Your task to perform on an android device: Go to internet settings Image 0: 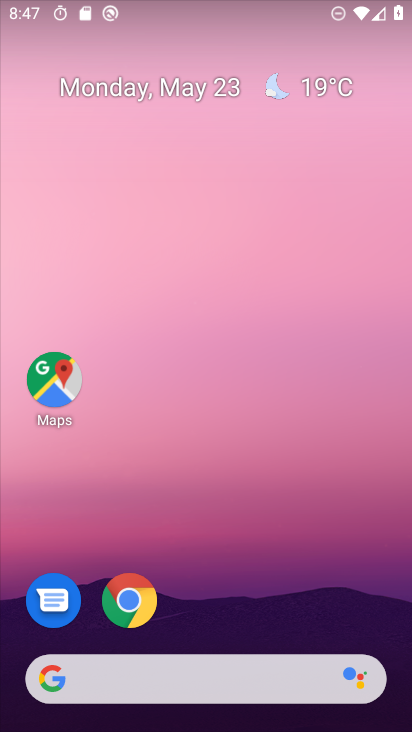
Step 0: press home button
Your task to perform on an android device: Go to internet settings Image 1: 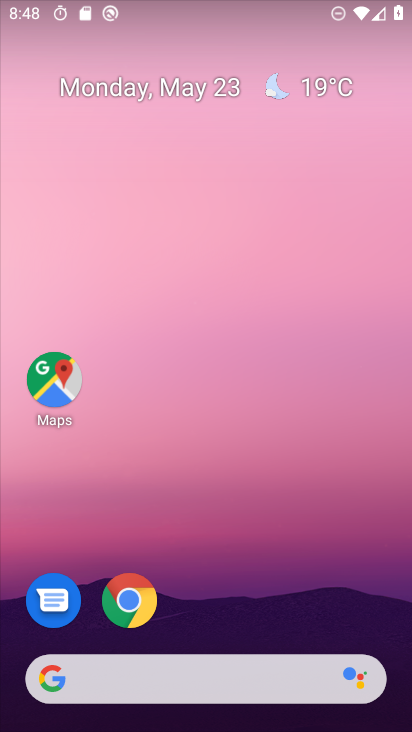
Step 1: drag from (32, 630) to (255, 130)
Your task to perform on an android device: Go to internet settings Image 2: 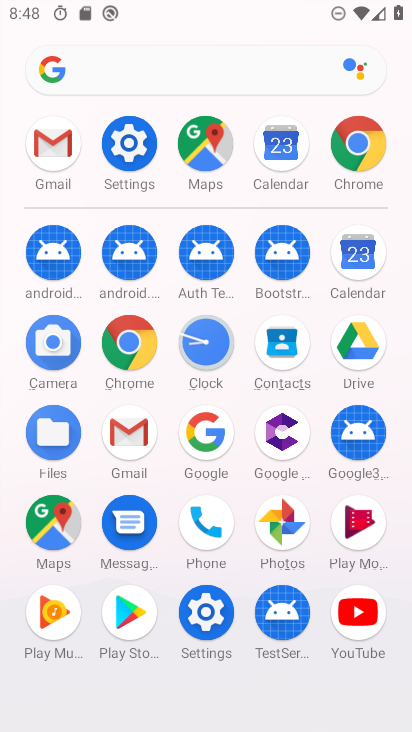
Step 2: click (139, 156)
Your task to perform on an android device: Go to internet settings Image 3: 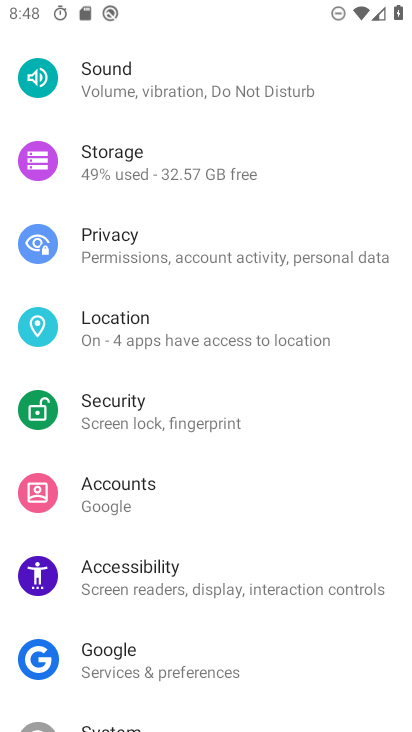
Step 3: drag from (158, 110) to (197, 677)
Your task to perform on an android device: Go to internet settings Image 4: 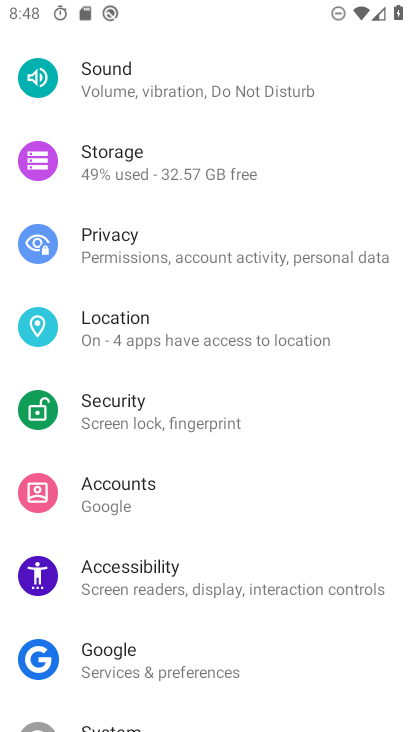
Step 4: drag from (115, 117) to (137, 625)
Your task to perform on an android device: Go to internet settings Image 5: 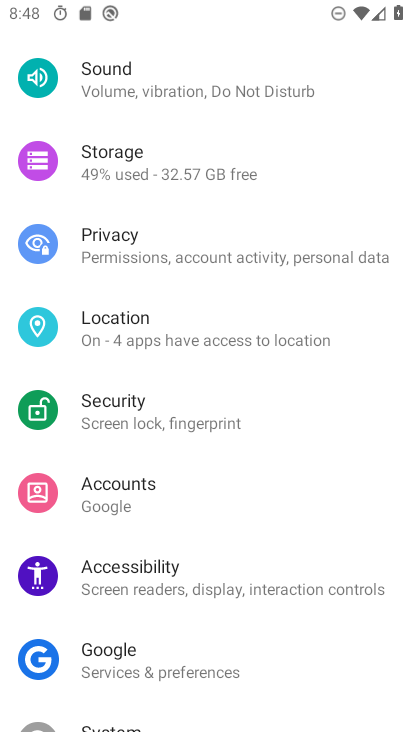
Step 5: drag from (194, 109) to (167, 539)
Your task to perform on an android device: Go to internet settings Image 6: 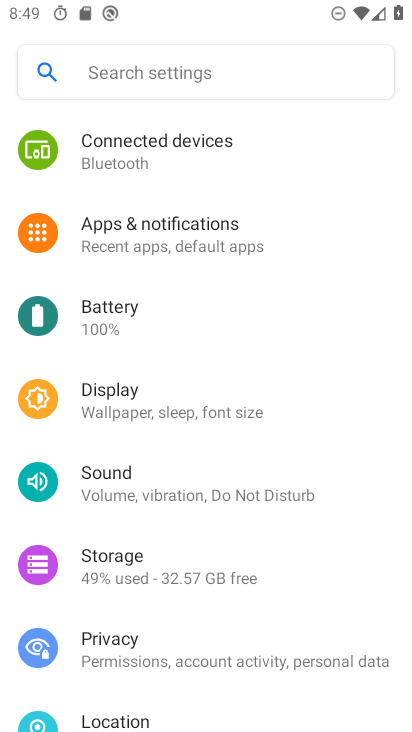
Step 6: drag from (195, 155) to (180, 687)
Your task to perform on an android device: Go to internet settings Image 7: 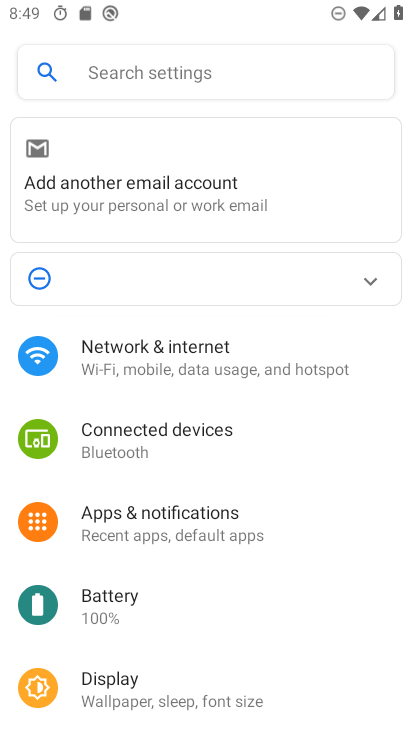
Step 7: click (169, 351)
Your task to perform on an android device: Go to internet settings Image 8: 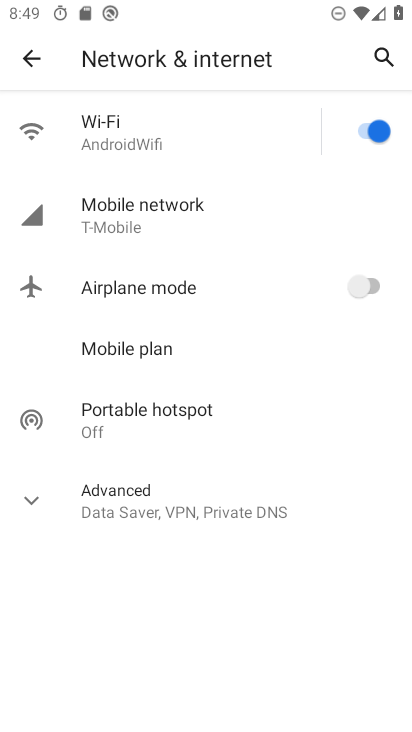
Step 8: click (172, 210)
Your task to perform on an android device: Go to internet settings Image 9: 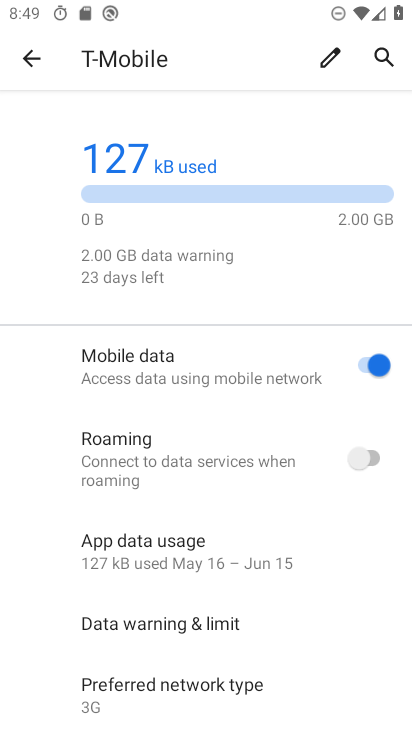
Step 9: task complete